Your task to perform on an android device: When is my next meeting? Image 0: 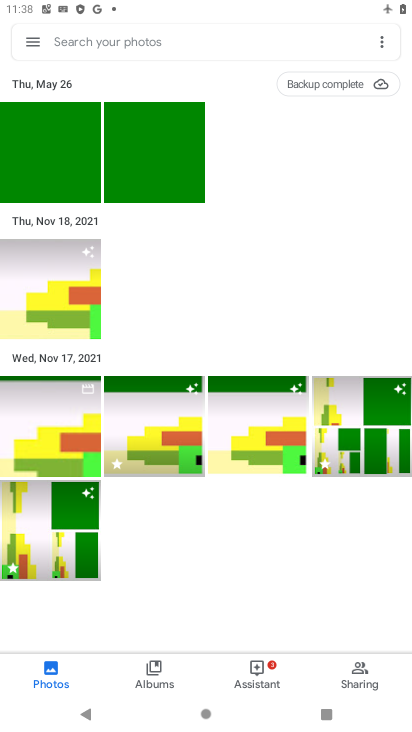
Step 0: press home button
Your task to perform on an android device: When is my next meeting? Image 1: 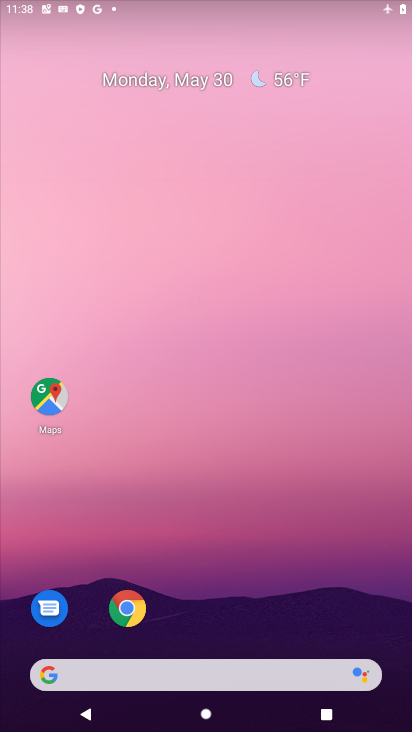
Step 1: drag from (191, 581) to (218, 79)
Your task to perform on an android device: When is my next meeting? Image 2: 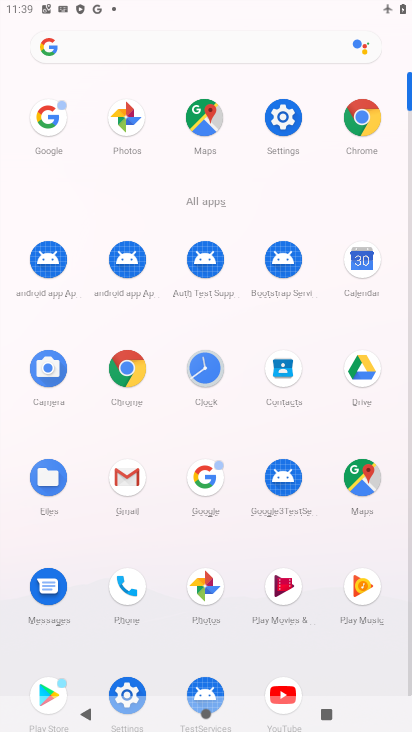
Step 2: click (279, 115)
Your task to perform on an android device: When is my next meeting? Image 3: 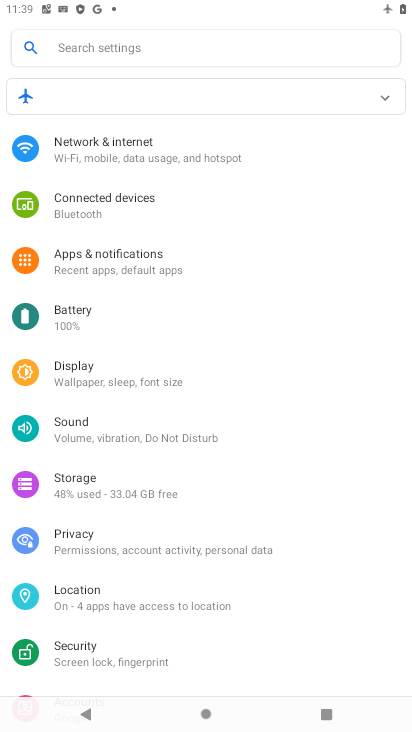
Step 3: press home button
Your task to perform on an android device: When is my next meeting? Image 4: 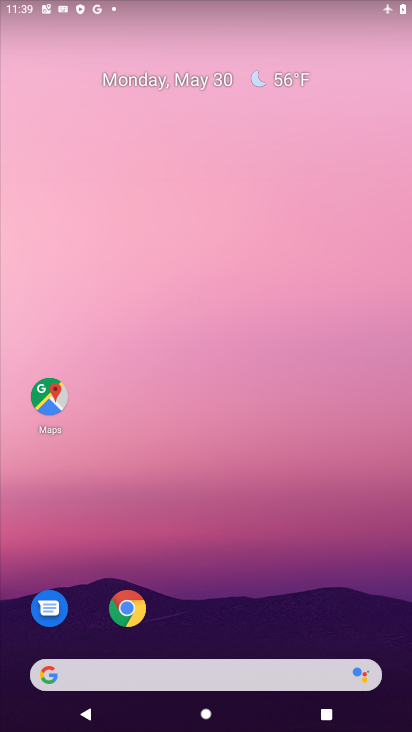
Step 4: drag from (223, 621) to (264, 16)
Your task to perform on an android device: When is my next meeting? Image 5: 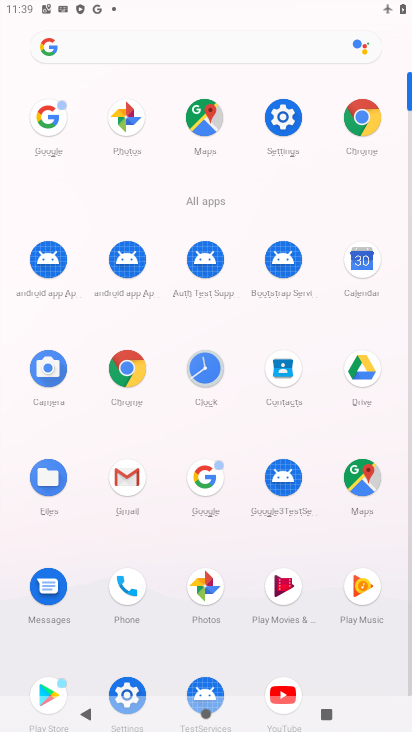
Step 5: click (358, 256)
Your task to perform on an android device: When is my next meeting? Image 6: 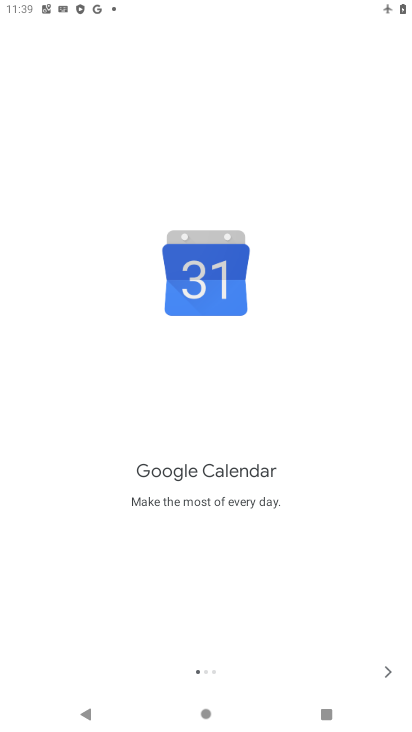
Step 6: click (384, 665)
Your task to perform on an android device: When is my next meeting? Image 7: 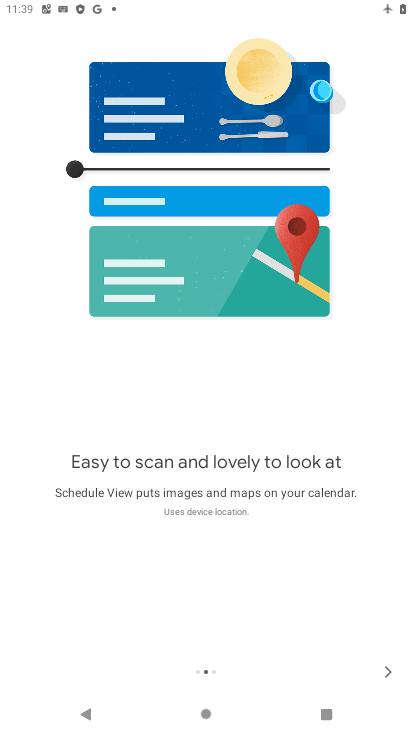
Step 7: click (384, 665)
Your task to perform on an android device: When is my next meeting? Image 8: 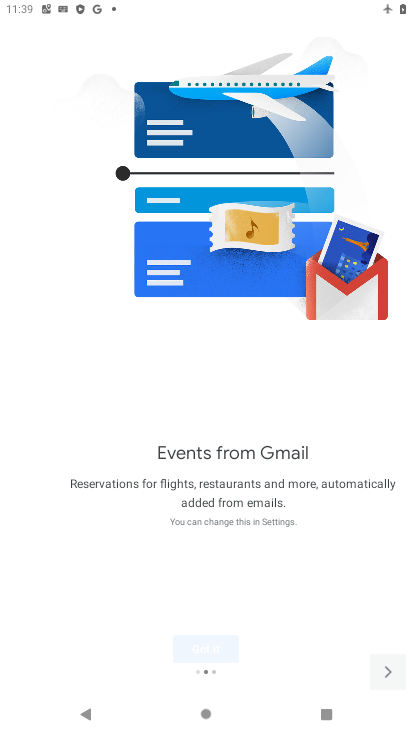
Step 8: click (384, 665)
Your task to perform on an android device: When is my next meeting? Image 9: 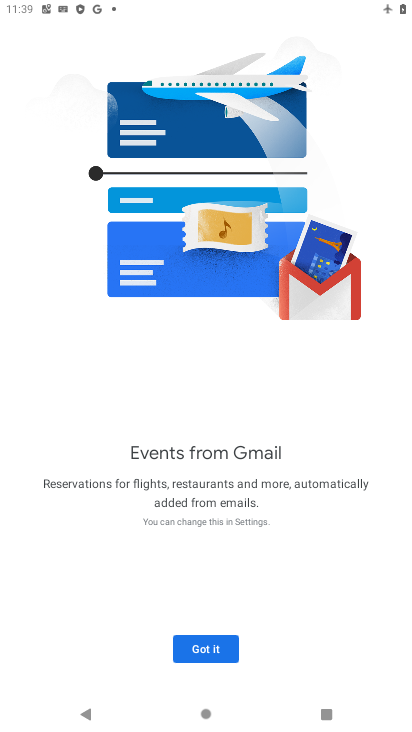
Step 9: click (210, 651)
Your task to perform on an android device: When is my next meeting? Image 10: 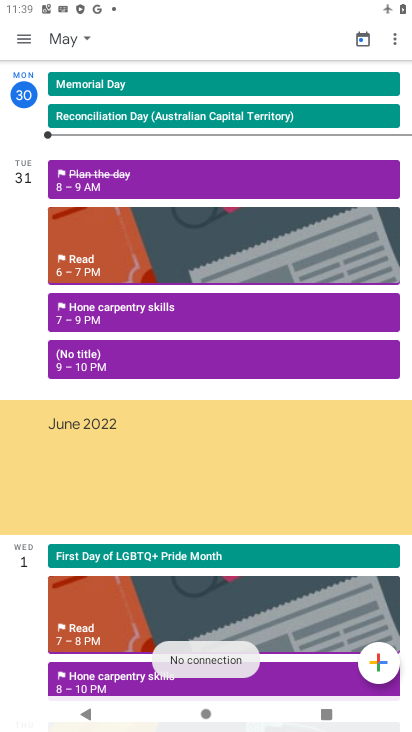
Step 10: click (89, 48)
Your task to perform on an android device: When is my next meeting? Image 11: 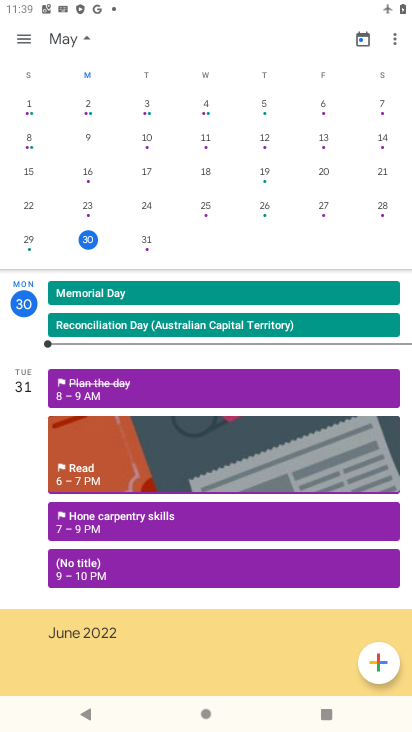
Step 11: click (147, 235)
Your task to perform on an android device: When is my next meeting? Image 12: 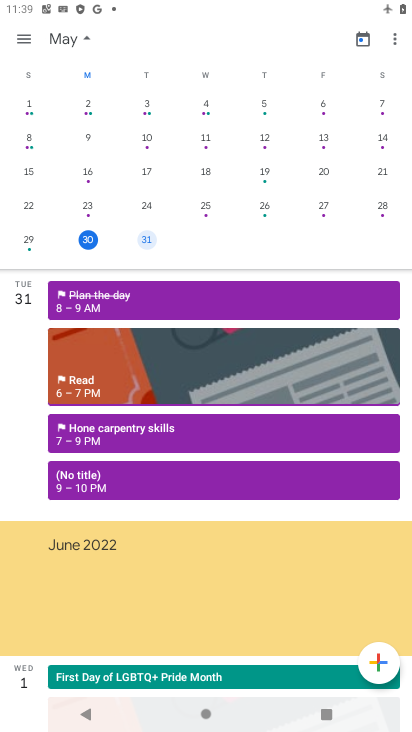
Step 12: task complete